Your task to perform on an android device: Play the last video I watched on Youtube Image 0: 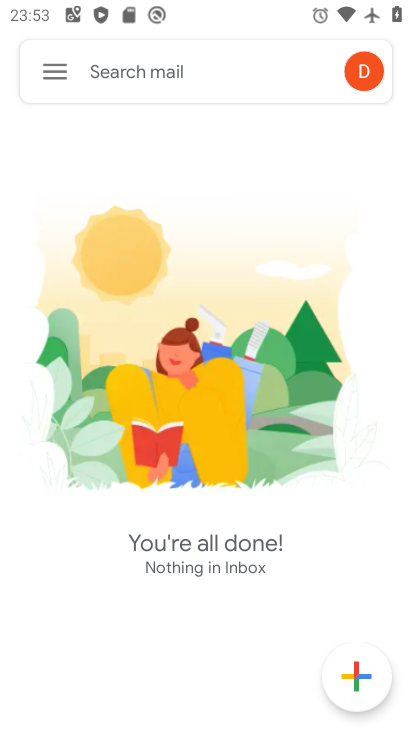
Step 0: press back button
Your task to perform on an android device: Play the last video I watched on Youtube Image 1: 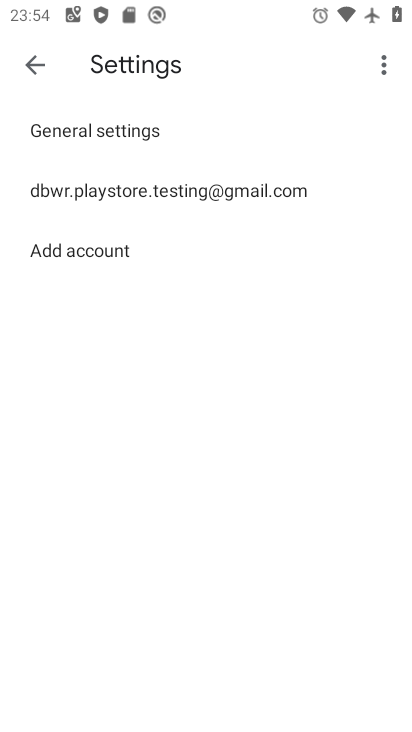
Step 1: press back button
Your task to perform on an android device: Play the last video I watched on Youtube Image 2: 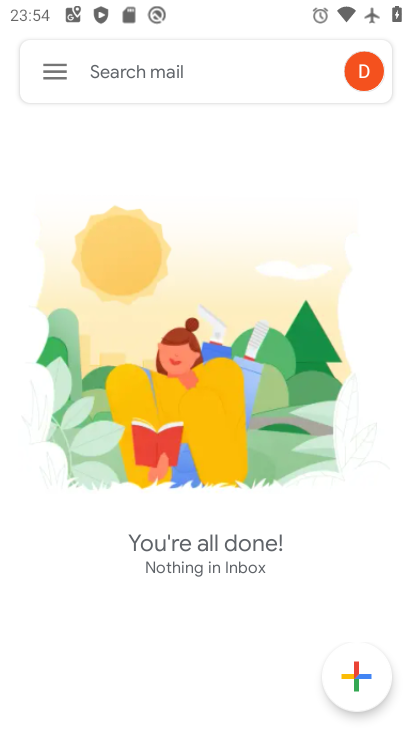
Step 2: press home button
Your task to perform on an android device: Play the last video I watched on Youtube Image 3: 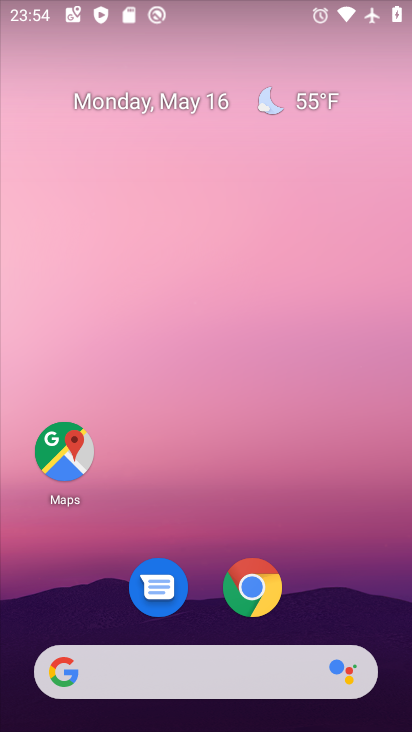
Step 3: drag from (336, 641) to (296, 21)
Your task to perform on an android device: Play the last video I watched on Youtube Image 4: 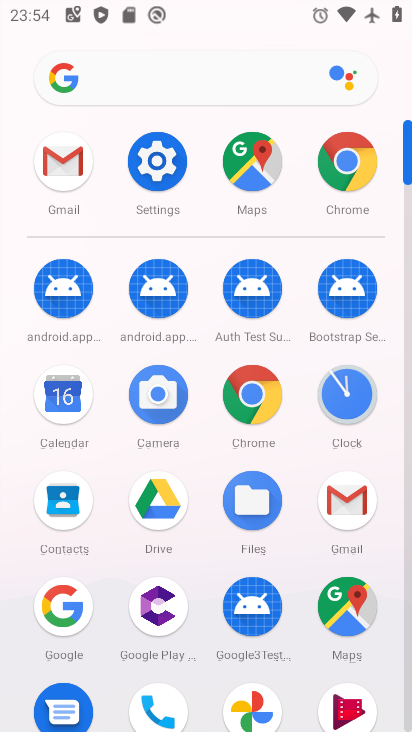
Step 4: drag from (1, 363) to (19, 223)
Your task to perform on an android device: Play the last video I watched on Youtube Image 5: 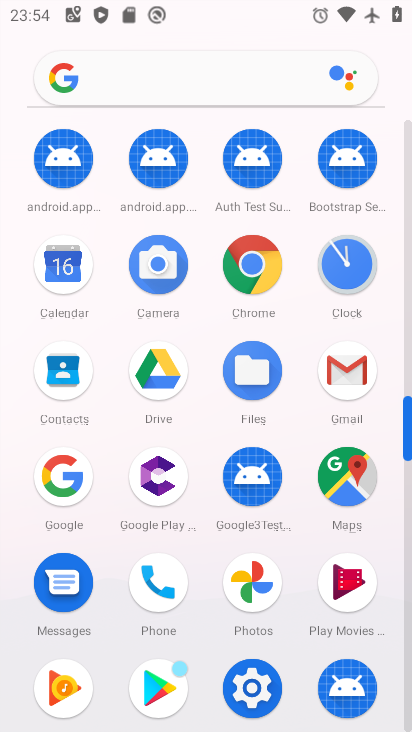
Step 5: drag from (17, 627) to (21, 350)
Your task to perform on an android device: Play the last video I watched on Youtube Image 6: 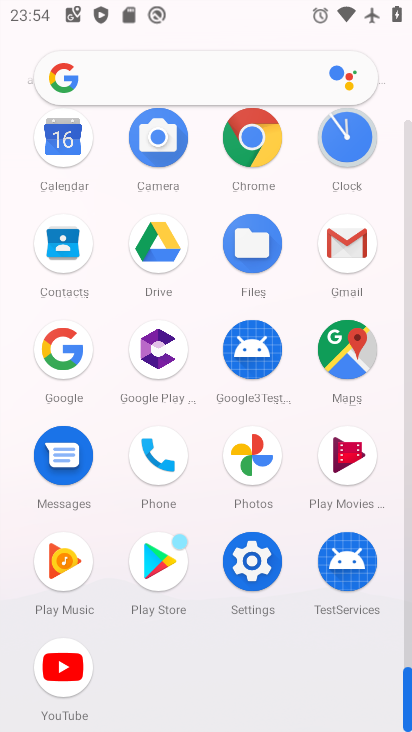
Step 6: click (52, 665)
Your task to perform on an android device: Play the last video I watched on Youtube Image 7: 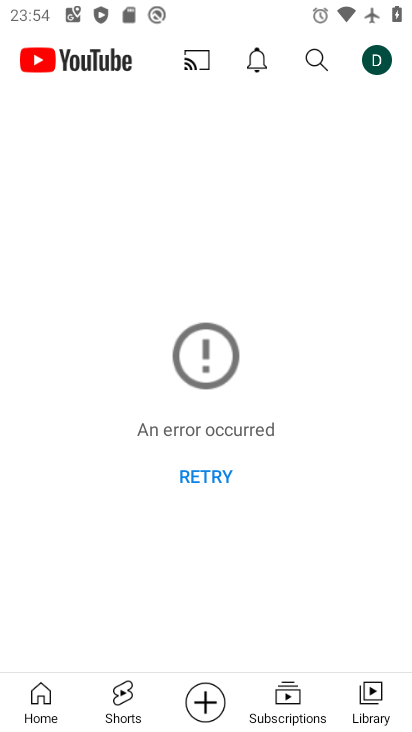
Step 7: click (361, 707)
Your task to perform on an android device: Play the last video I watched on Youtube Image 8: 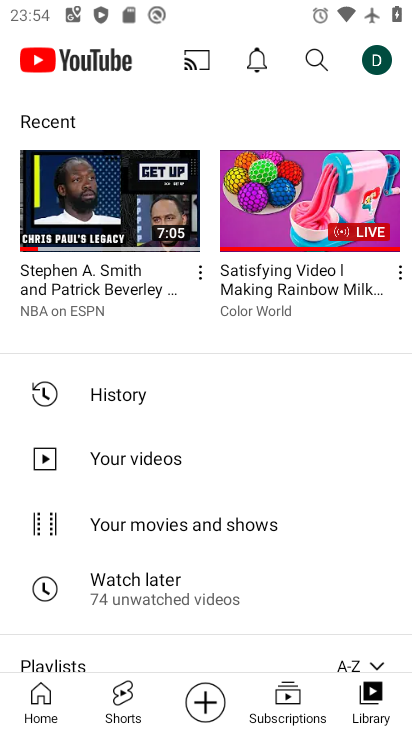
Step 8: click (136, 234)
Your task to perform on an android device: Play the last video I watched on Youtube Image 9: 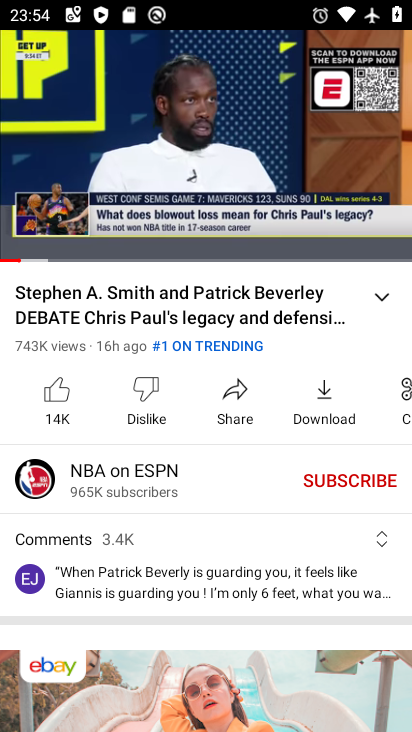
Step 9: task complete